Your task to perform on an android device: Open Amazon Image 0: 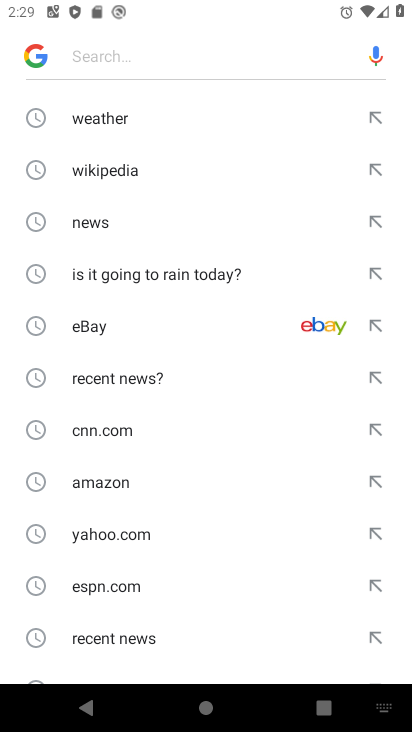
Step 0: press home button
Your task to perform on an android device: Open Amazon Image 1: 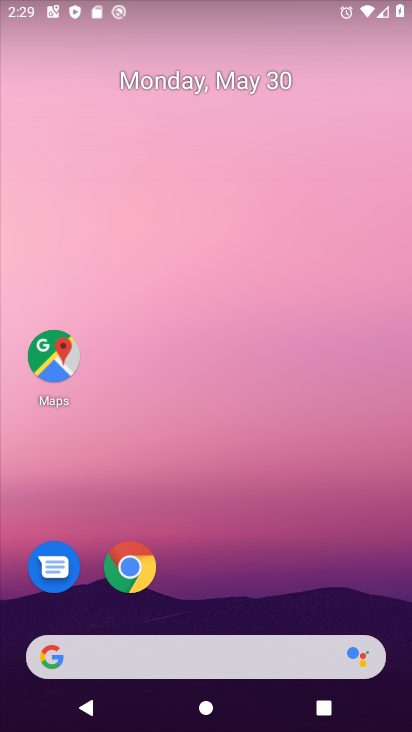
Step 1: click (130, 583)
Your task to perform on an android device: Open Amazon Image 2: 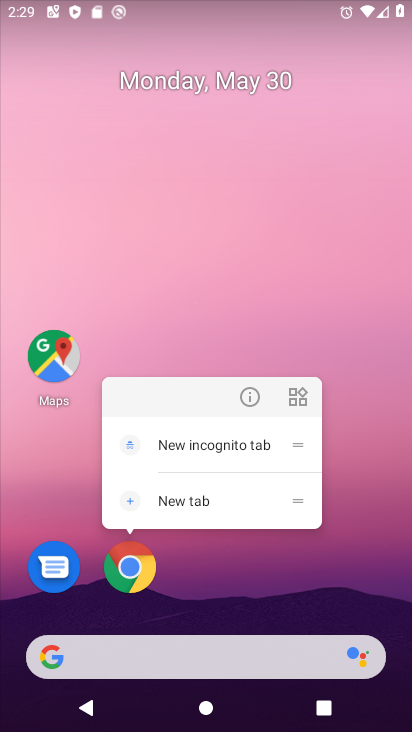
Step 2: click (132, 581)
Your task to perform on an android device: Open Amazon Image 3: 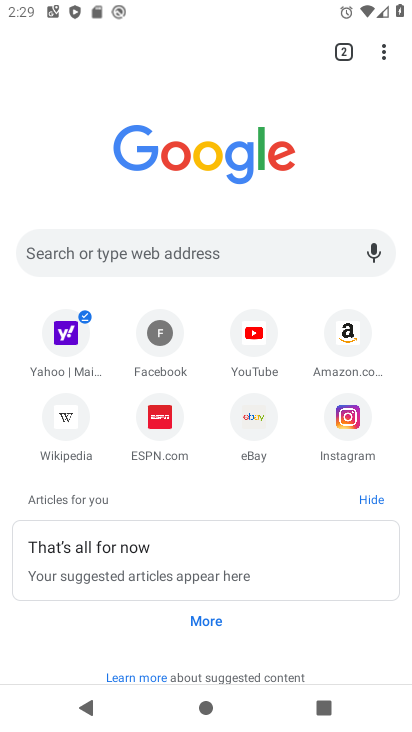
Step 3: click (344, 344)
Your task to perform on an android device: Open Amazon Image 4: 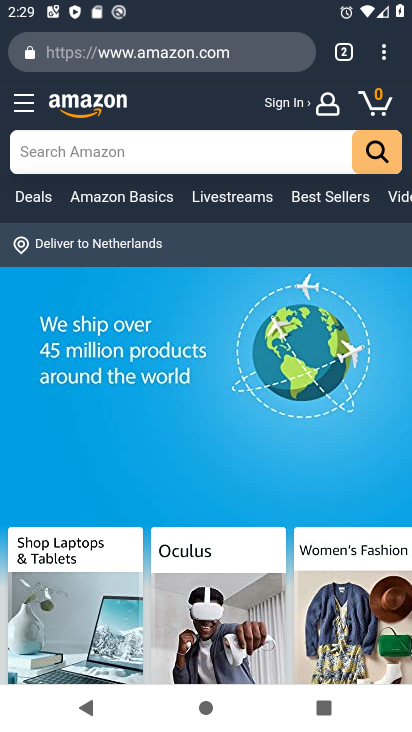
Step 4: task complete